Your task to perform on an android device: turn on javascript in the chrome app Image 0: 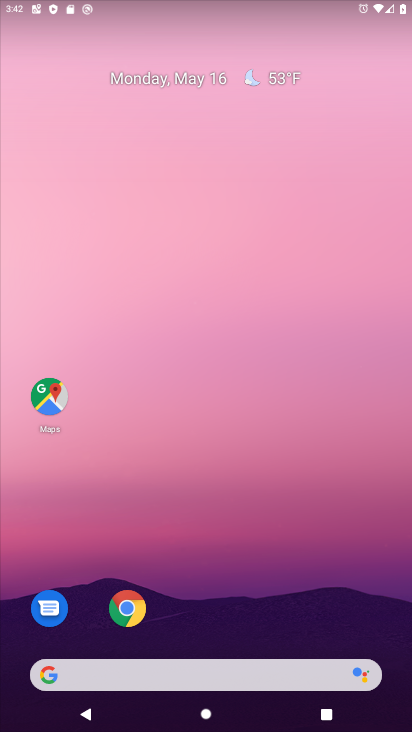
Step 0: click (126, 609)
Your task to perform on an android device: turn on javascript in the chrome app Image 1: 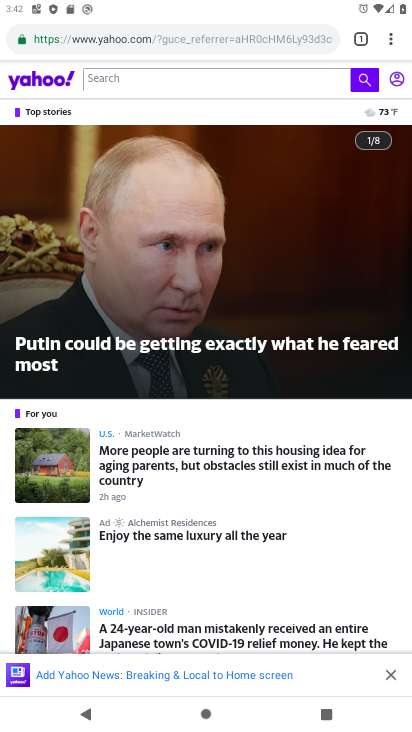
Step 1: click (391, 39)
Your task to perform on an android device: turn on javascript in the chrome app Image 2: 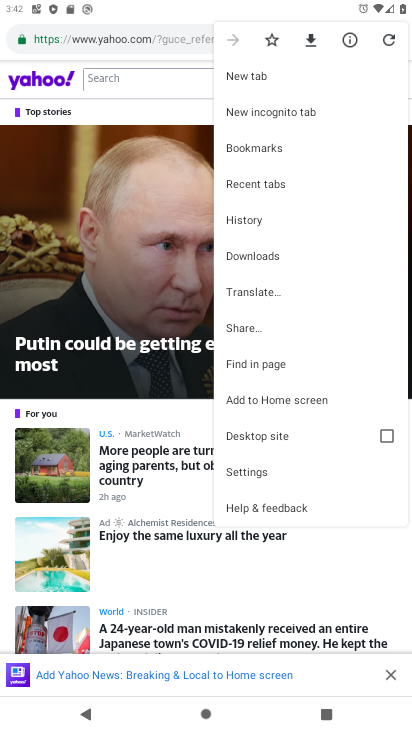
Step 2: click (250, 471)
Your task to perform on an android device: turn on javascript in the chrome app Image 3: 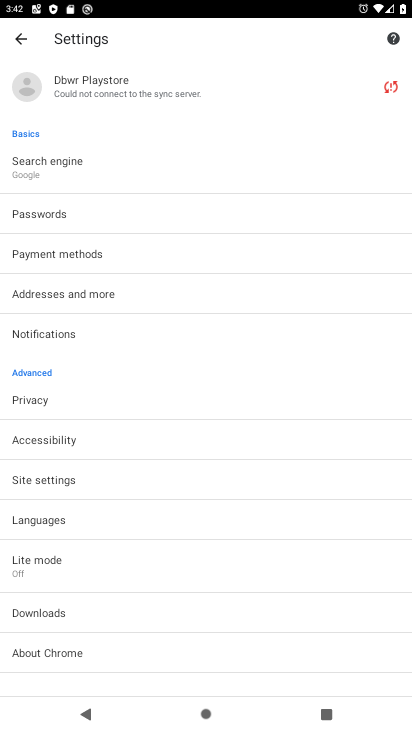
Step 3: click (43, 482)
Your task to perform on an android device: turn on javascript in the chrome app Image 4: 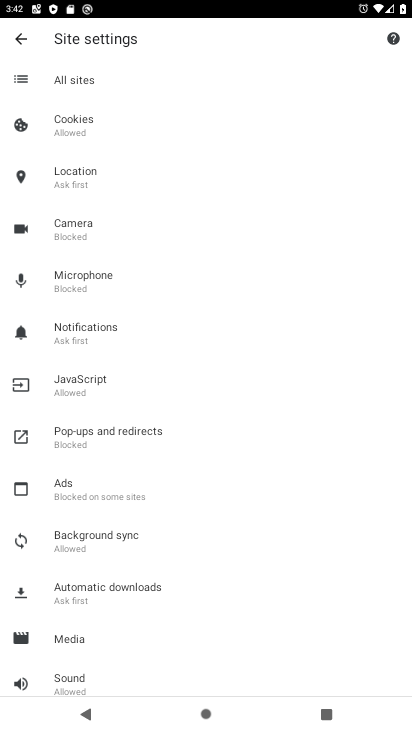
Step 4: click (63, 384)
Your task to perform on an android device: turn on javascript in the chrome app Image 5: 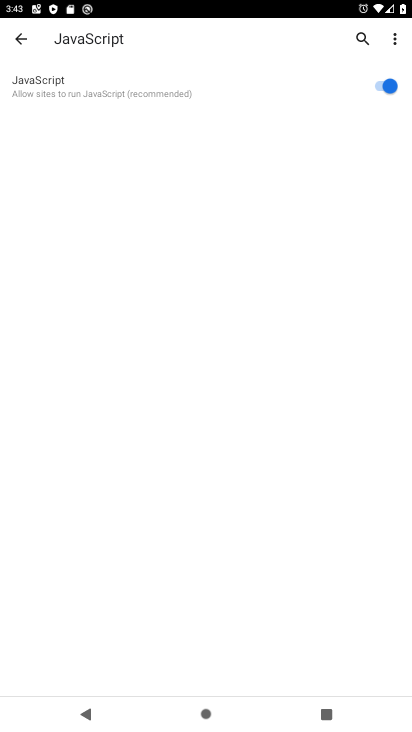
Step 5: task complete